Your task to perform on an android device: What is the recent news? Image 0: 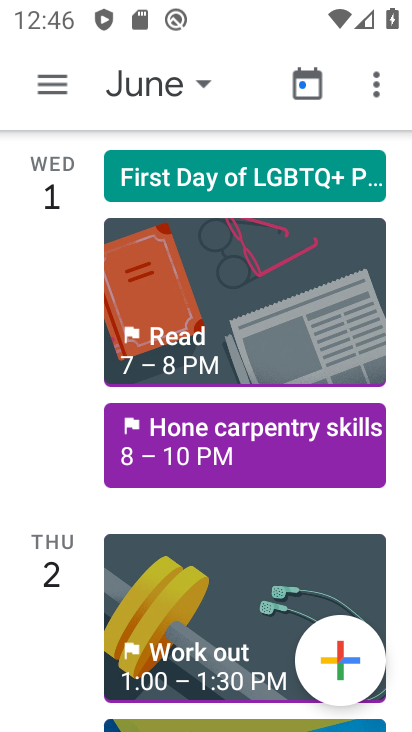
Step 0: press home button
Your task to perform on an android device: What is the recent news? Image 1: 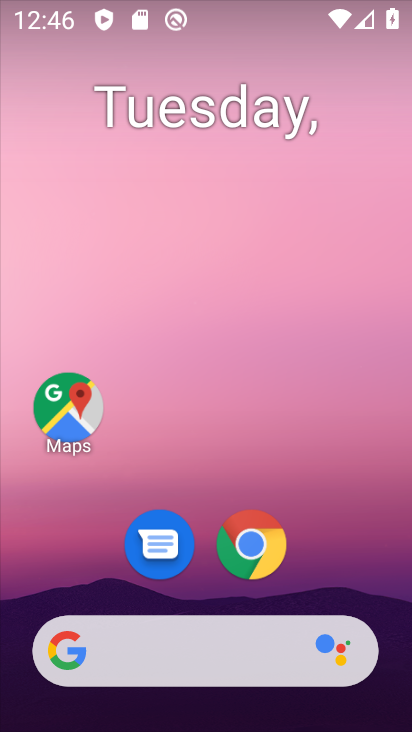
Step 1: task complete